Your task to perform on an android device: turn on javascript in the chrome app Image 0: 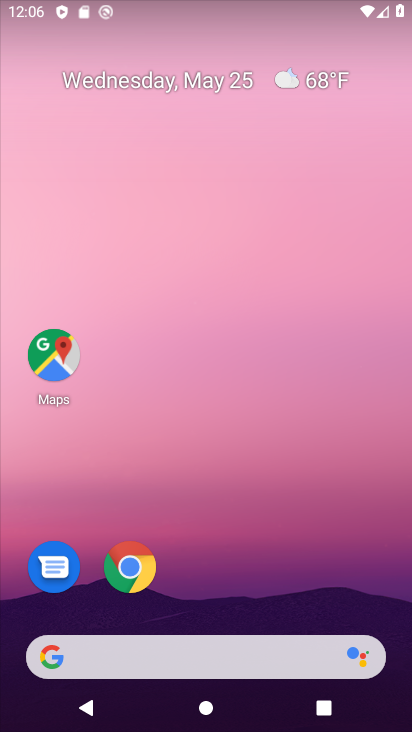
Step 0: click (125, 575)
Your task to perform on an android device: turn on javascript in the chrome app Image 1: 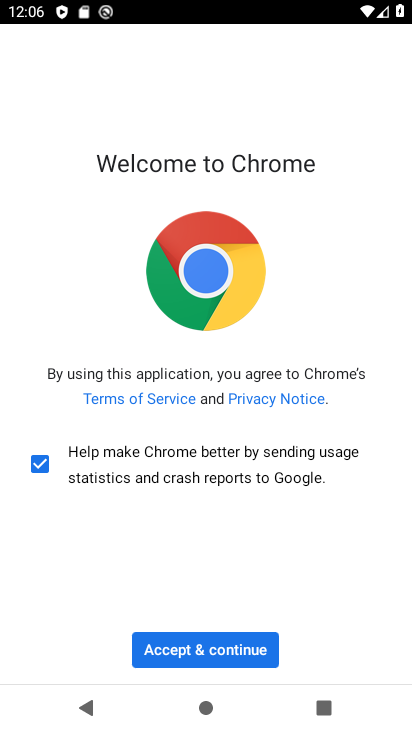
Step 1: click (253, 656)
Your task to perform on an android device: turn on javascript in the chrome app Image 2: 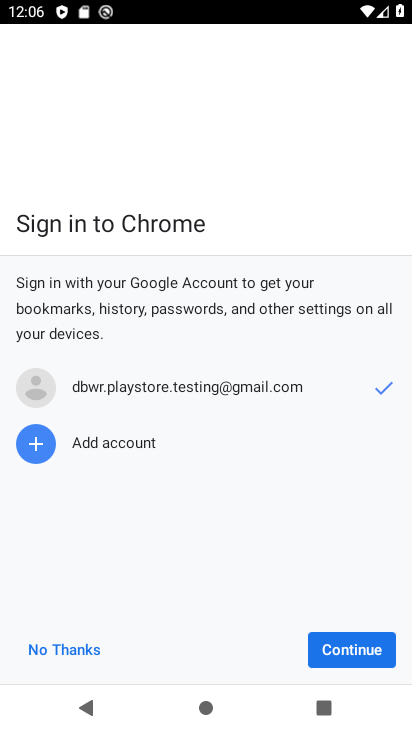
Step 2: click (371, 650)
Your task to perform on an android device: turn on javascript in the chrome app Image 3: 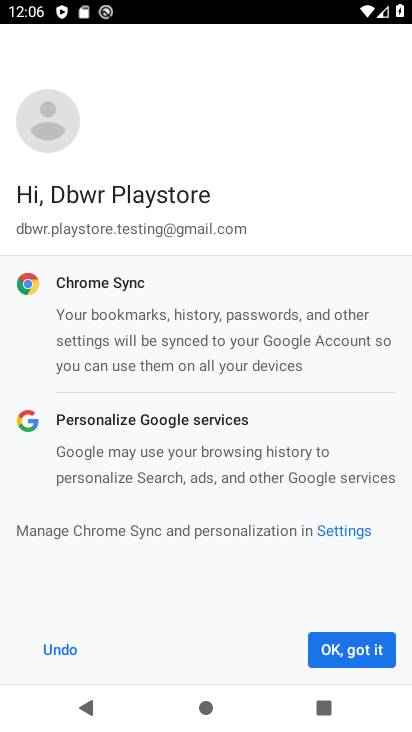
Step 3: click (371, 650)
Your task to perform on an android device: turn on javascript in the chrome app Image 4: 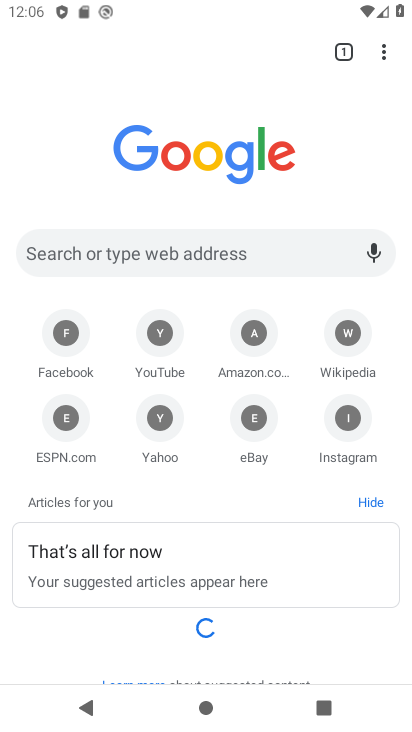
Step 4: drag from (383, 48) to (296, 445)
Your task to perform on an android device: turn on javascript in the chrome app Image 5: 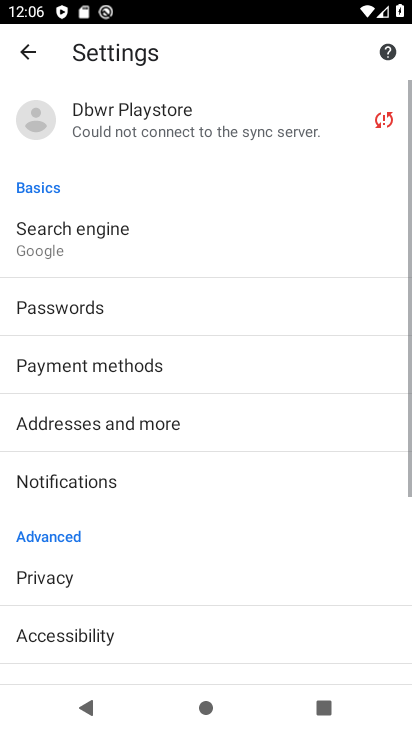
Step 5: drag from (199, 579) to (280, 249)
Your task to perform on an android device: turn on javascript in the chrome app Image 6: 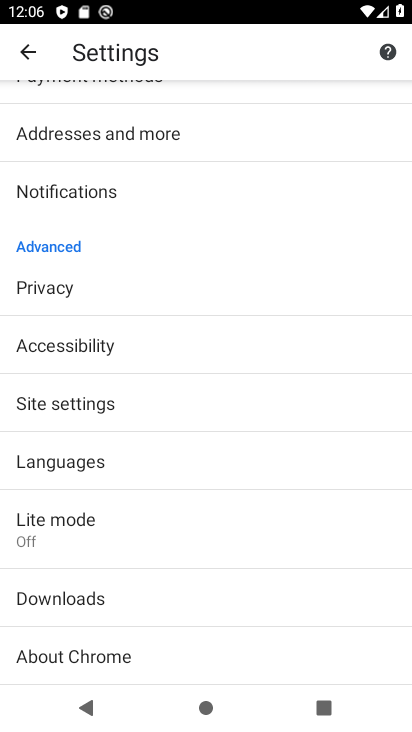
Step 6: click (136, 393)
Your task to perform on an android device: turn on javascript in the chrome app Image 7: 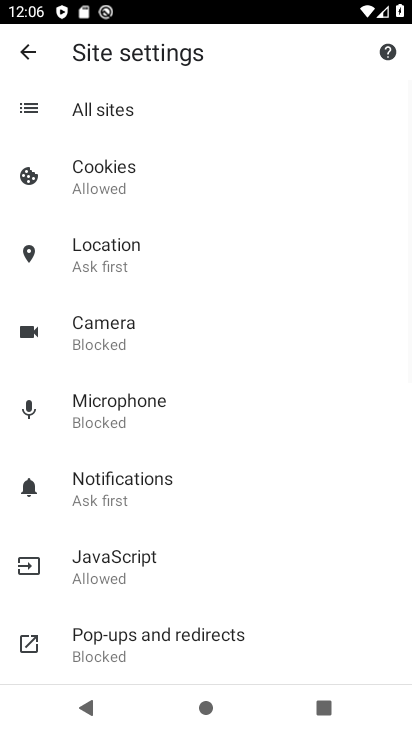
Step 7: drag from (214, 599) to (237, 437)
Your task to perform on an android device: turn on javascript in the chrome app Image 8: 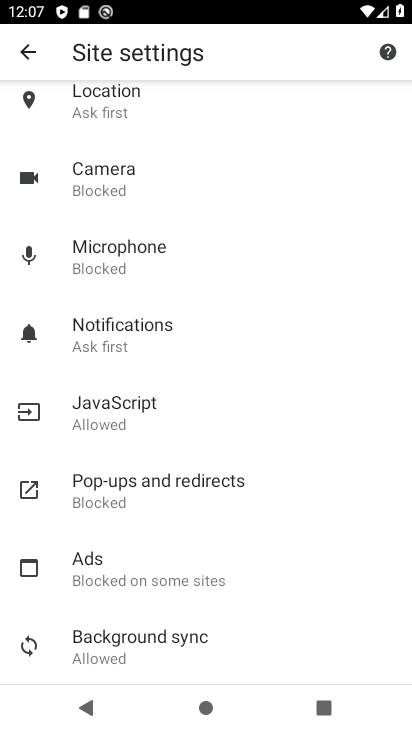
Step 8: click (210, 419)
Your task to perform on an android device: turn on javascript in the chrome app Image 9: 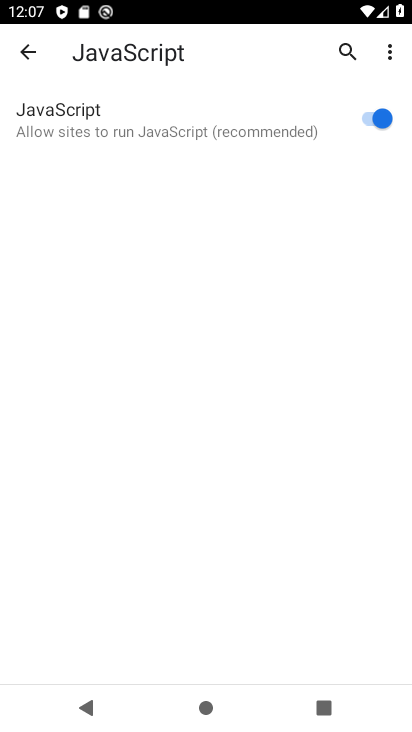
Step 9: task complete